Your task to perform on an android device: Search for seafood restaurants on Google Maps Image 0: 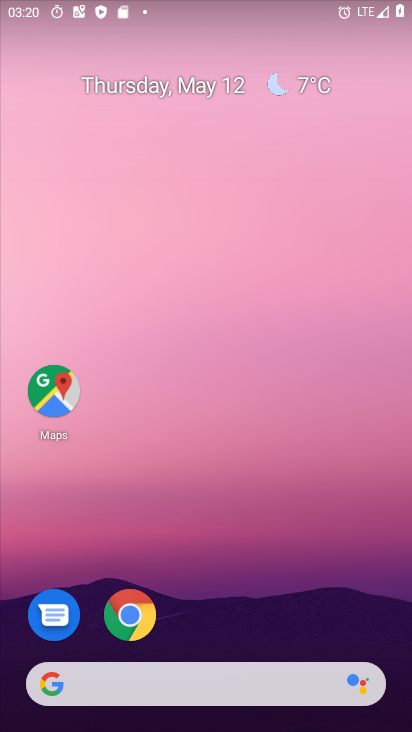
Step 0: drag from (197, 683) to (162, 323)
Your task to perform on an android device: Search for seafood restaurants on Google Maps Image 1: 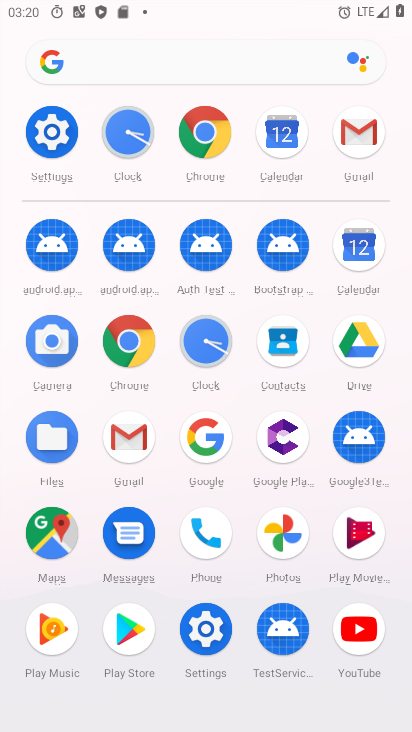
Step 1: click (44, 546)
Your task to perform on an android device: Search for seafood restaurants on Google Maps Image 2: 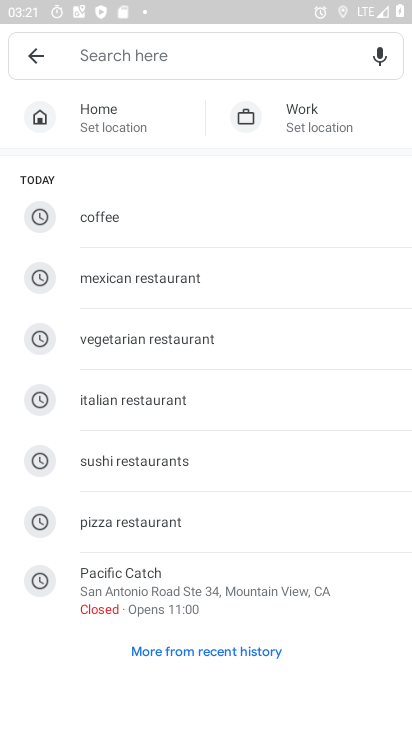
Step 2: click (161, 53)
Your task to perform on an android device: Search for seafood restaurants on Google Maps Image 3: 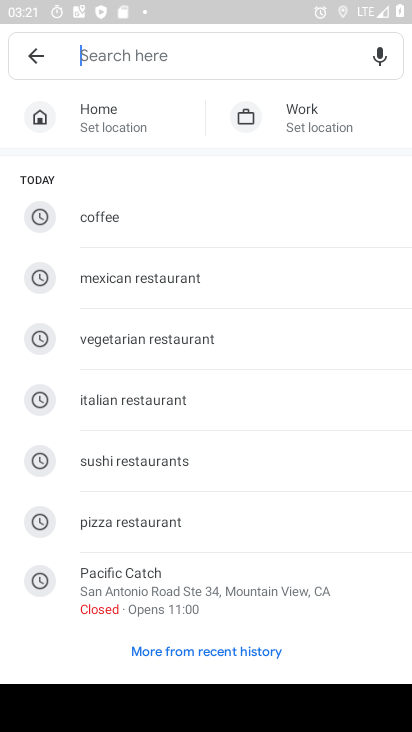
Step 3: type "seafood restaurants"
Your task to perform on an android device: Search for seafood restaurants on Google Maps Image 4: 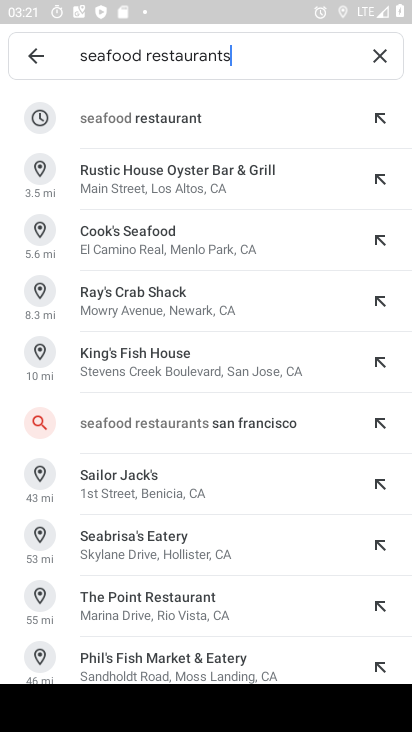
Step 4: click (155, 128)
Your task to perform on an android device: Search for seafood restaurants on Google Maps Image 5: 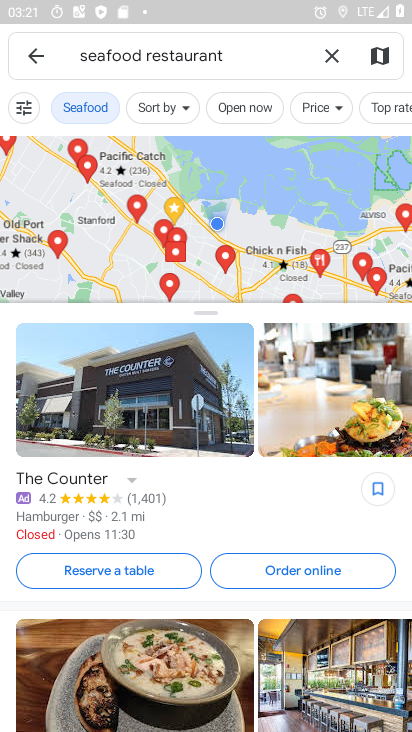
Step 5: task complete